Your task to perform on an android device: change the clock style Image 0: 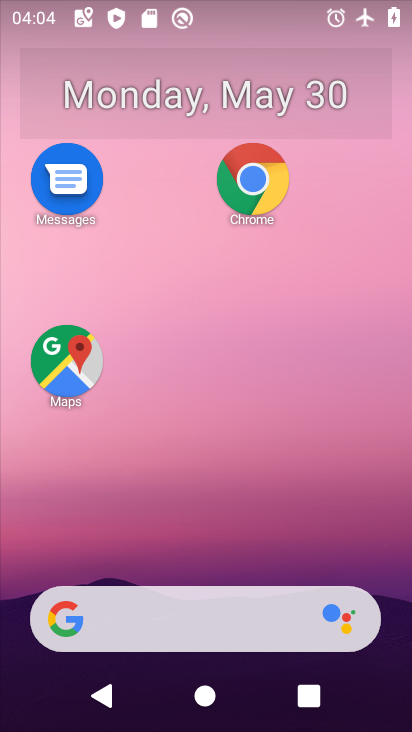
Step 0: drag from (244, 526) to (223, 2)
Your task to perform on an android device: change the clock style Image 1: 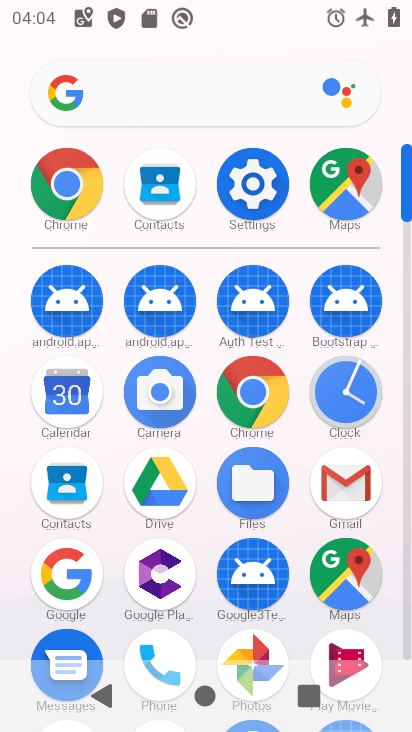
Step 1: click (324, 394)
Your task to perform on an android device: change the clock style Image 2: 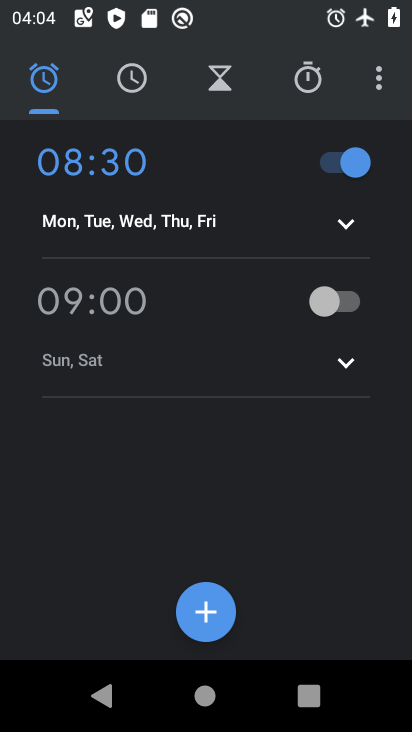
Step 2: click (378, 73)
Your task to perform on an android device: change the clock style Image 3: 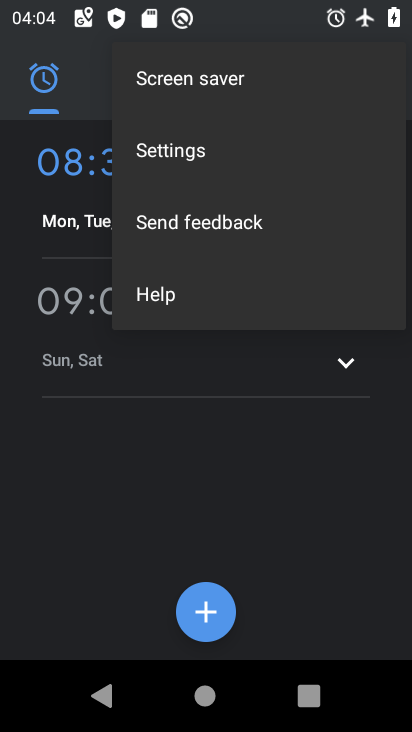
Step 3: click (236, 157)
Your task to perform on an android device: change the clock style Image 4: 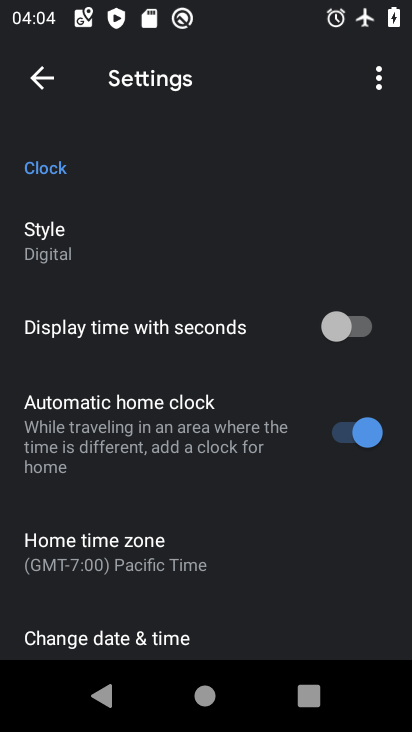
Step 4: click (84, 247)
Your task to perform on an android device: change the clock style Image 5: 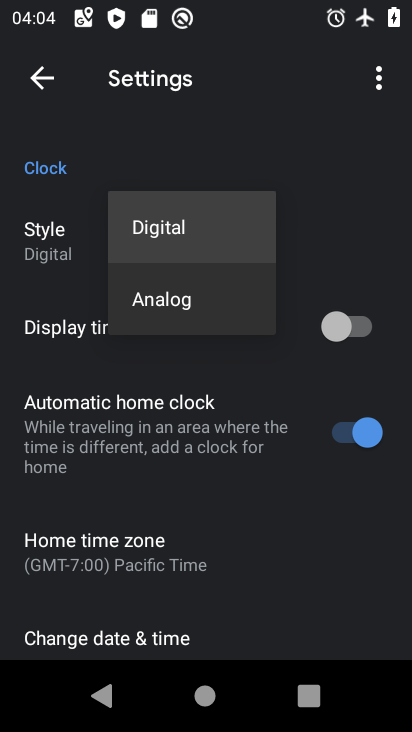
Step 5: click (149, 305)
Your task to perform on an android device: change the clock style Image 6: 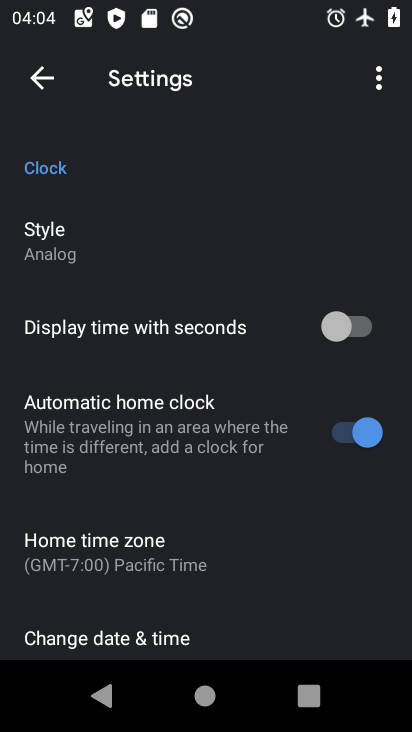
Step 6: task complete